Your task to perform on an android device: Show me recent news Image 0: 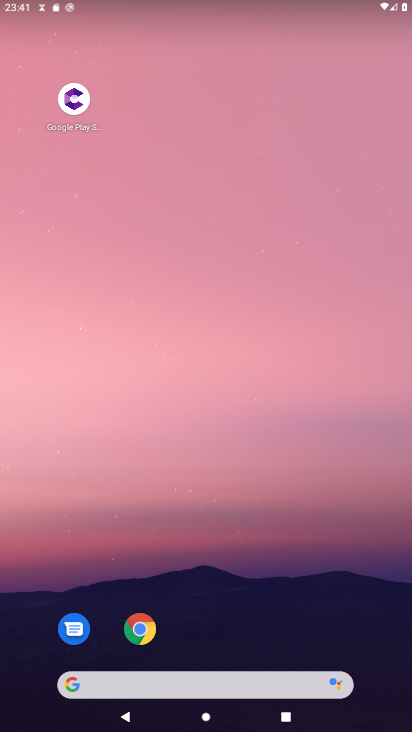
Step 0: drag from (255, 615) to (229, 306)
Your task to perform on an android device: Show me recent news Image 1: 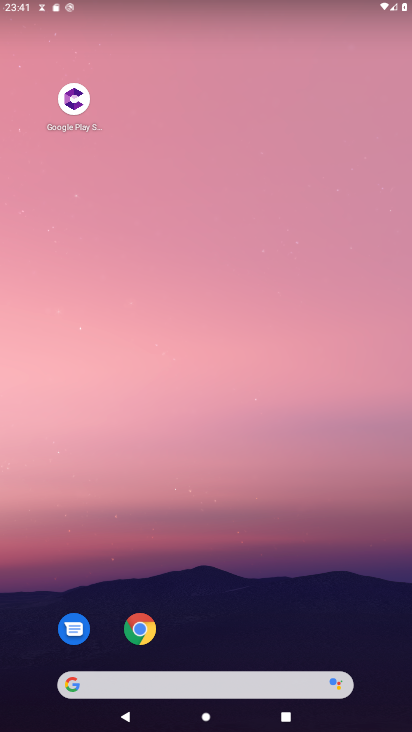
Step 1: drag from (229, 531) to (233, 216)
Your task to perform on an android device: Show me recent news Image 2: 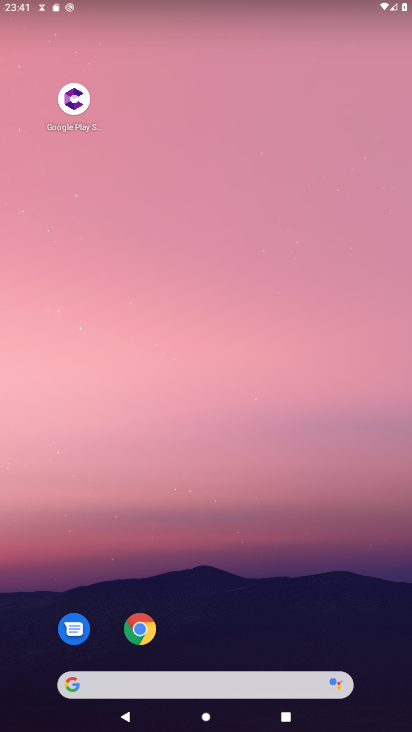
Step 2: drag from (233, 666) to (242, 130)
Your task to perform on an android device: Show me recent news Image 3: 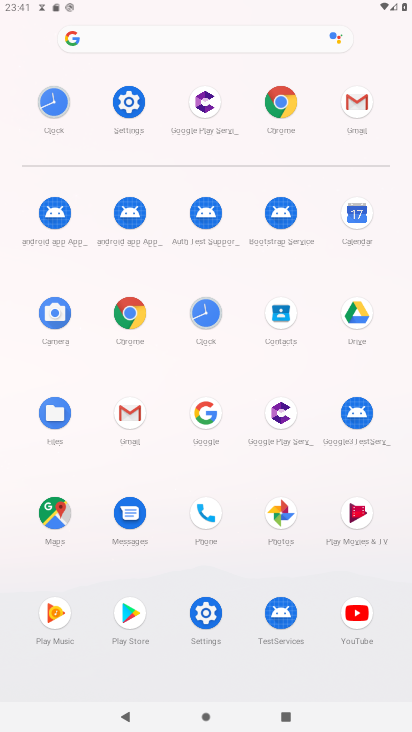
Step 3: click (288, 107)
Your task to perform on an android device: Show me recent news Image 4: 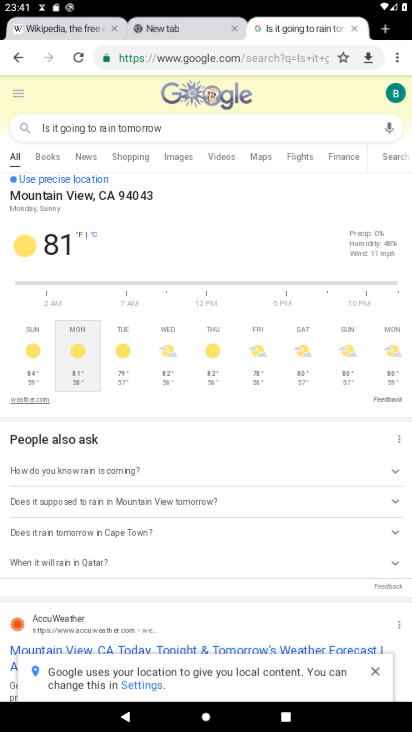
Step 4: click (351, 31)
Your task to perform on an android device: Show me recent news Image 5: 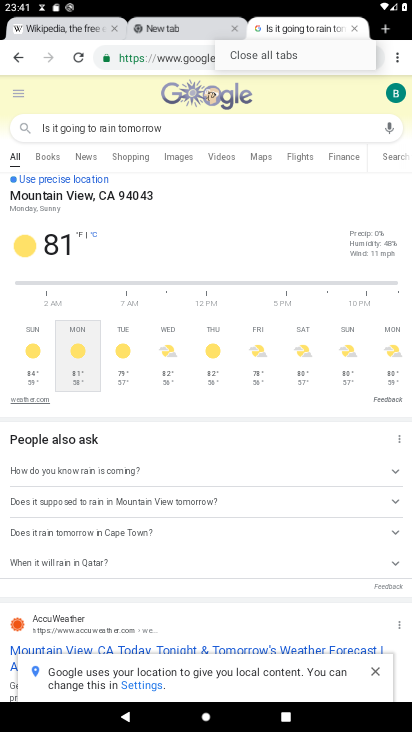
Step 5: click (353, 28)
Your task to perform on an android device: Show me recent news Image 6: 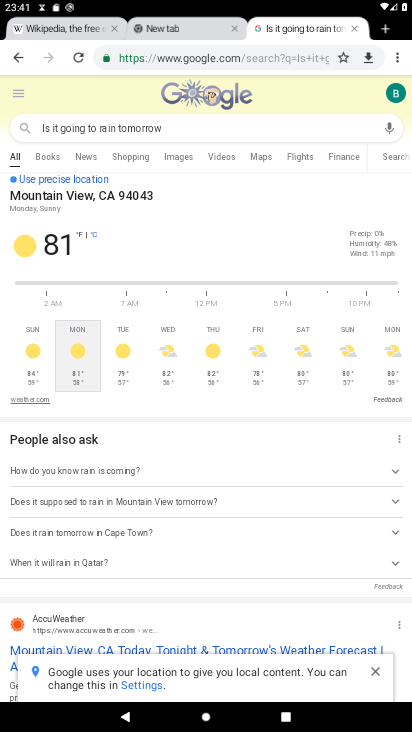
Step 6: click (357, 28)
Your task to perform on an android device: Show me recent news Image 7: 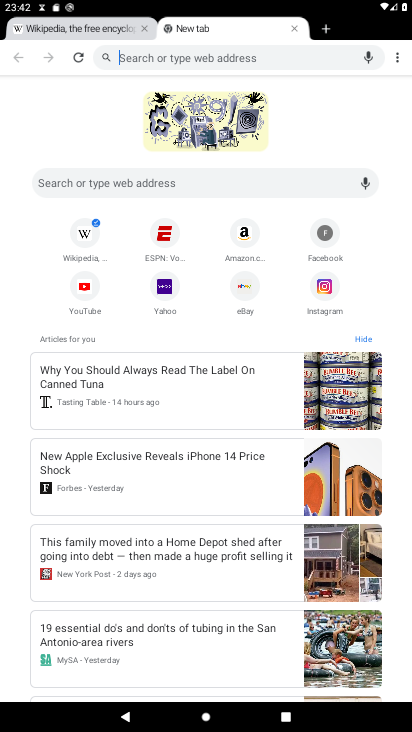
Step 7: click (223, 184)
Your task to perform on an android device: Show me recent news Image 8: 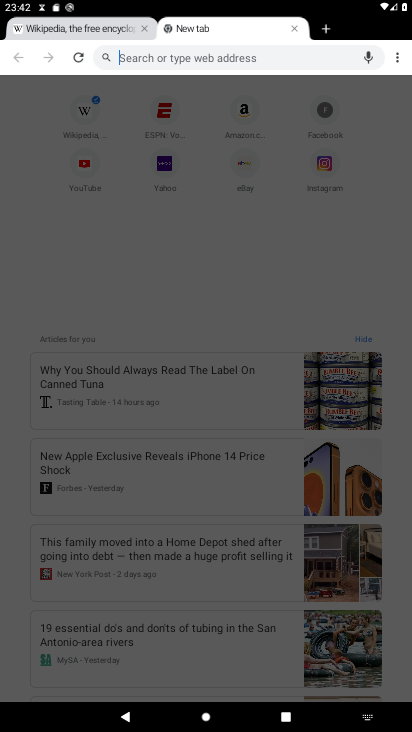
Step 8: type "Show me recent news "
Your task to perform on an android device: Show me recent news Image 9: 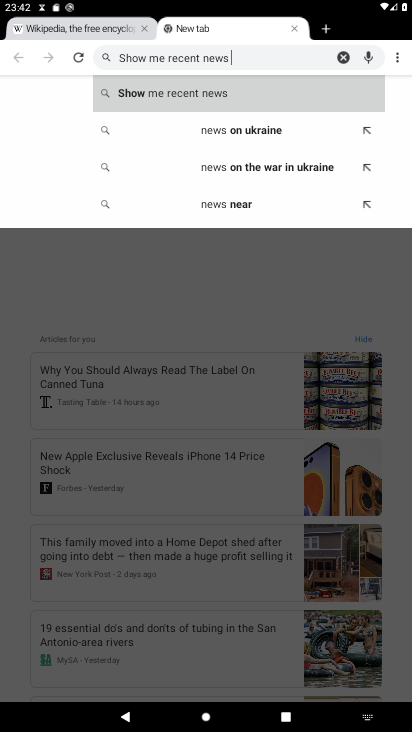
Step 9: click (183, 86)
Your task to perform on an android device: Show me recent news Image 10: 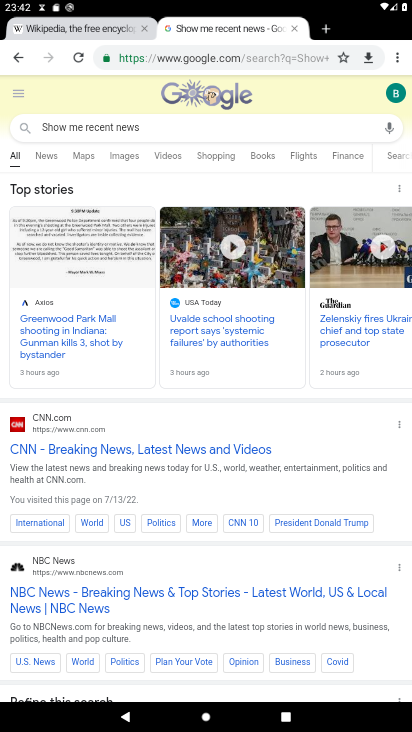
Step 10: task complete